Your task to perform on an android device: Go to network settings Image 0: 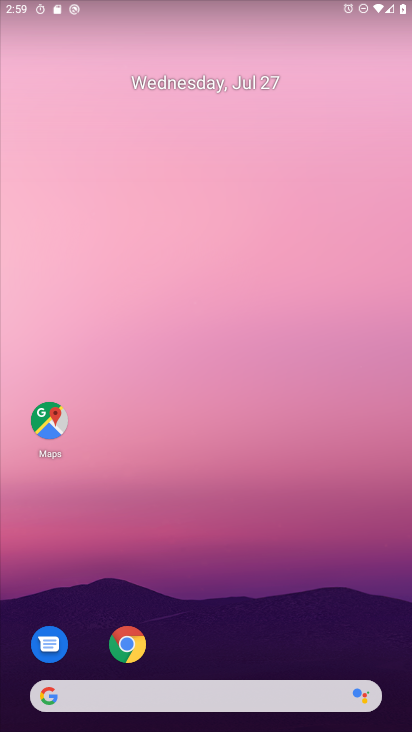
Step 0: drag from (254, 496) to (307, 142)
Your task to perform on an android device: Go to network settings Image 1: 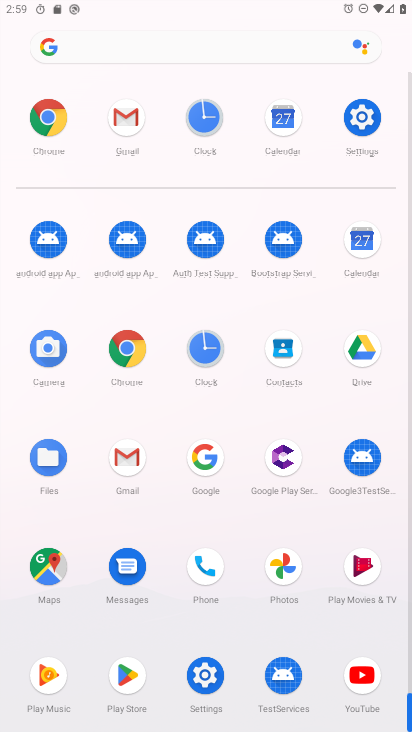
Step 1: click (194, 657)
Your task to perform on an android device: Go to network settings Image 2: 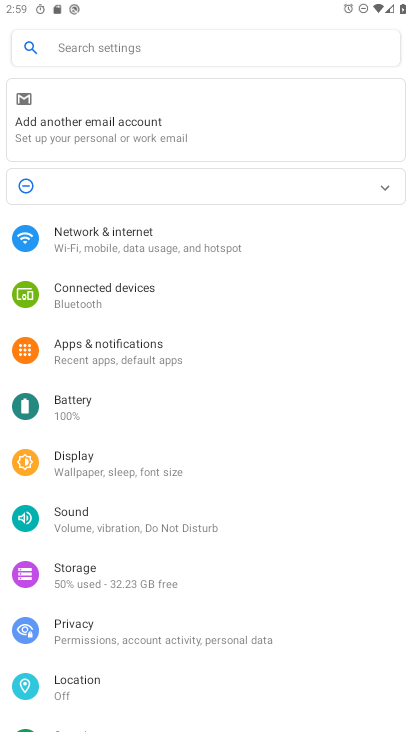
Step 2: click (130, 226)
Your task to perform on an android device: Go to network settings Image 3: 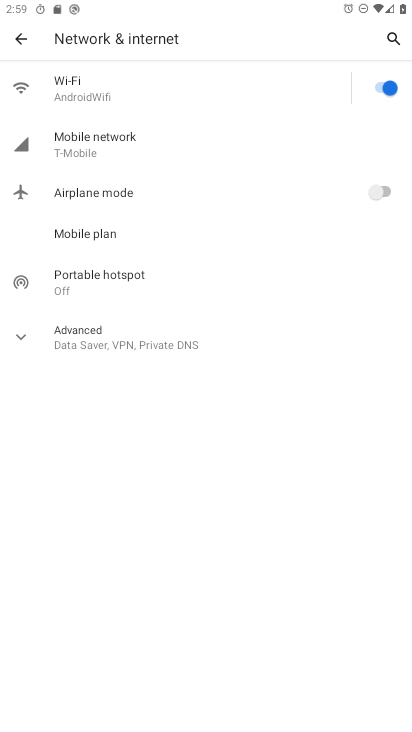
Step 3: task complete